Your task to perform on an android device: Go to calendar. Show me events next week Image 0: 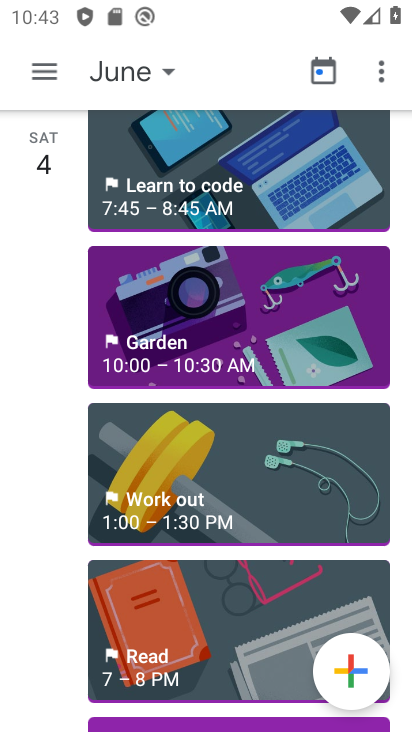
Step 0: press home button
Your task to perform on an android device: Go to calendar. Show me events next week Image 1: 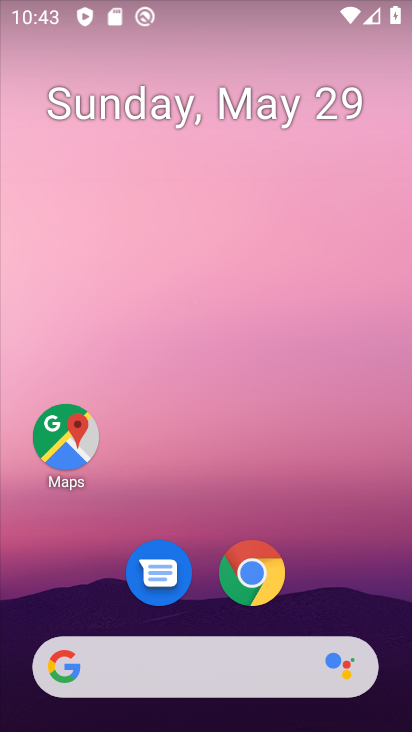
Step 1: drag from (332, 569) to (253, 95)
Your task to perform on an android device: Go to calendar. Show me events next week Image 2: 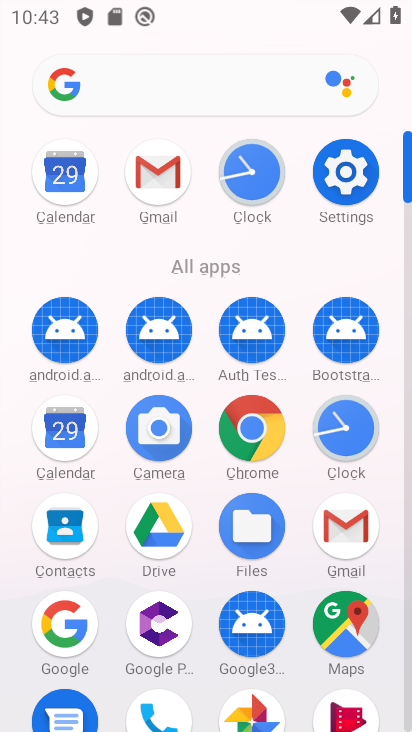
Step 2: click (56, 172)
Your task to perform on an android device: Go to calendar. Show me events next week Image 3: 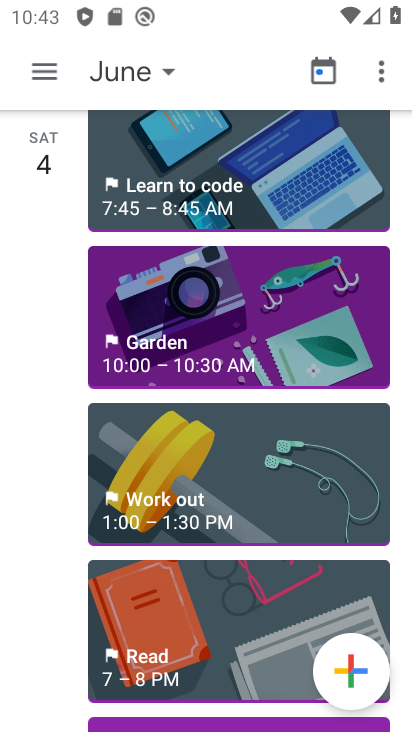
Step 3: click (37, 64)
Your task to perform on an android device: Go to calendar. Show me events next week Image 4: 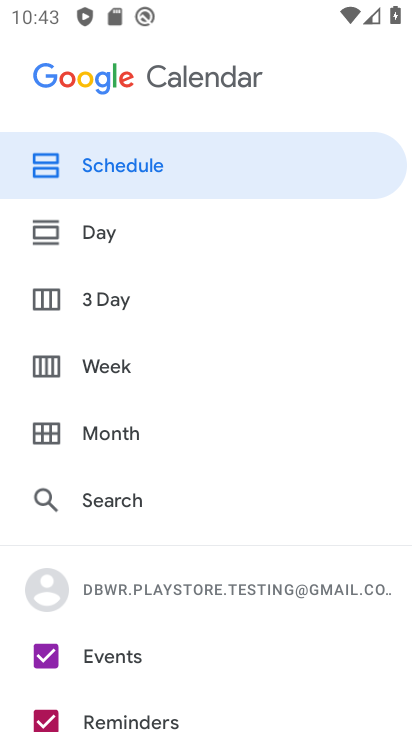
Step 4: click (116, 153)
Your task to perform on an android device: Go to calendar. Show me events next week Image 5: 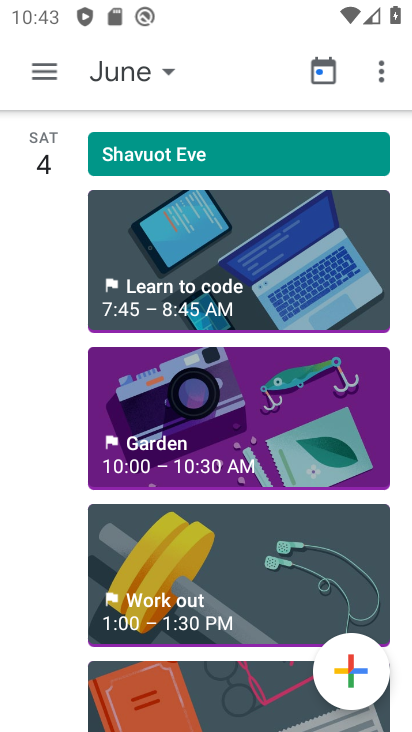
Step 5: task complete